Your task to perform on an android device: turn on javascript in the chrome app Image 0: 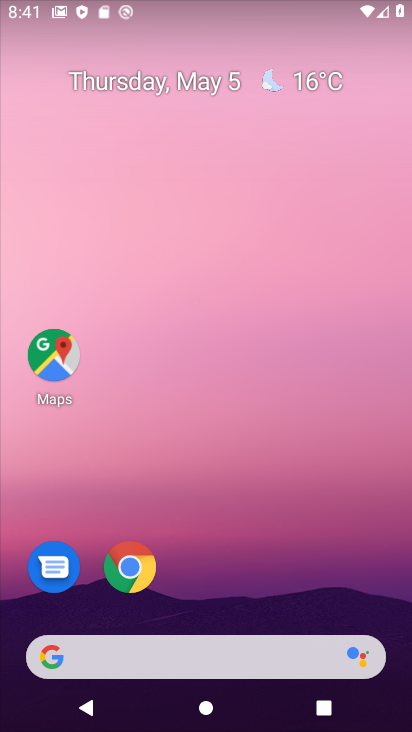
Step 0: click (129, 572)
Your task to perform on an android device: turn on javascript in the chrome app Image 1: 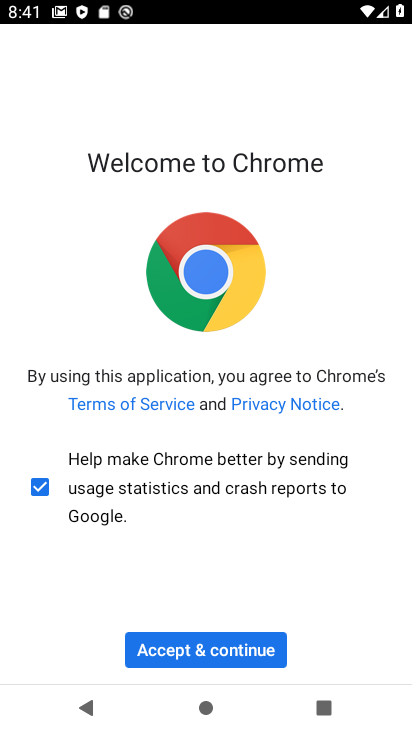
Step 1: click (217, 650)
Your task to perform on an android device: turn on javascript in the chrome app Image 2: 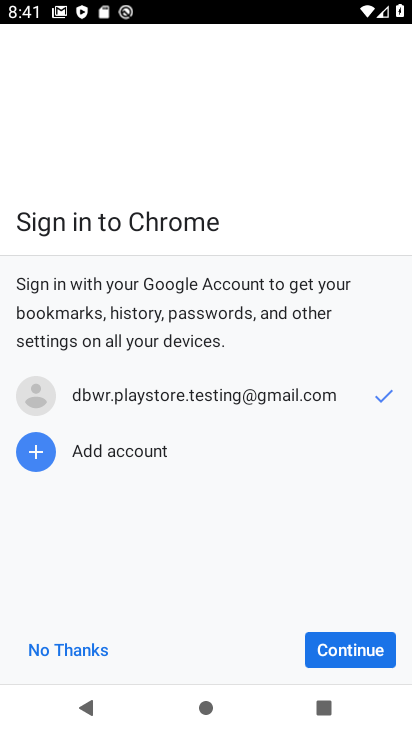
Step 2: click (355, 648)
Your task to perform on an android device: turn on javascript in the chrome app Image 3: 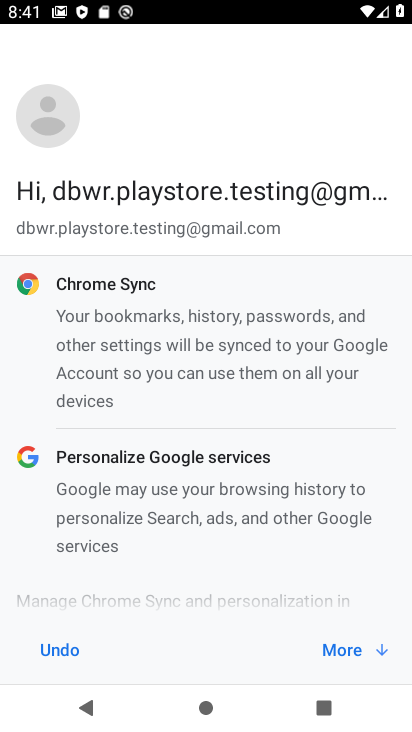
Step 3: click (355, 648)
Your task to perform on an android device: turn on javascript in the chrome app Image 4: 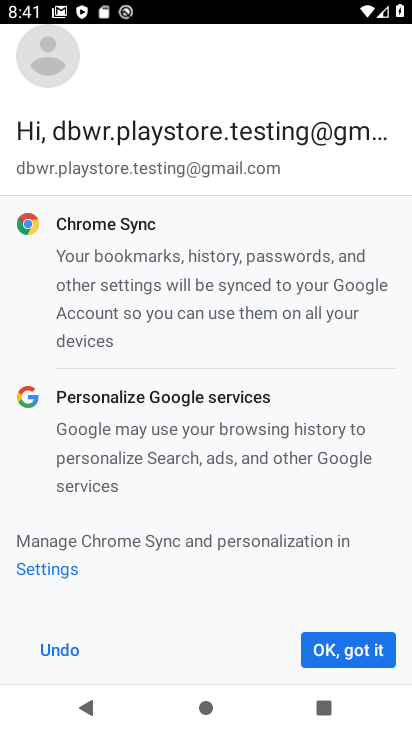
Step 4: click (355, 648)
Your task to perform on an android device: turn on javascript in the chrome app Image 5: 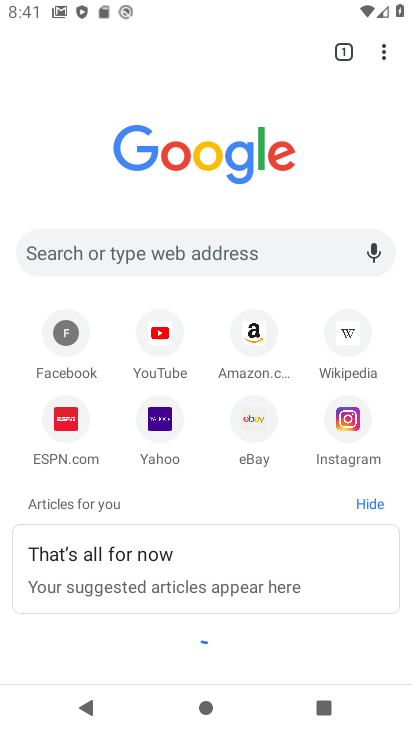
Step 5: click (387, 45)
Your task to perform on an android device: turn on javascript in the chrome app Image 6: 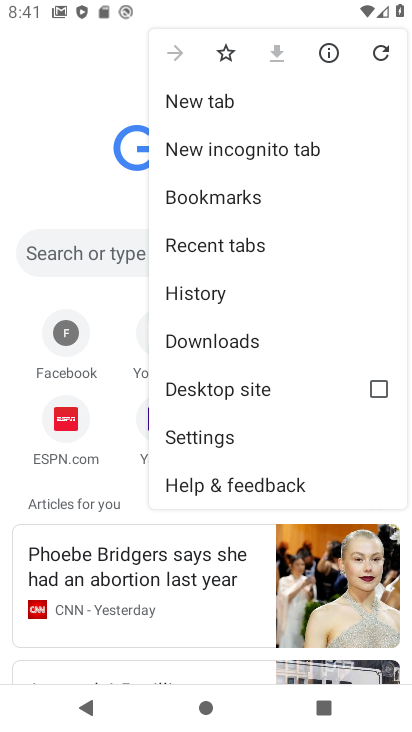
Step 6: click (212, 434)
Your task to perform on an android device: turn on javascript in the chrome app Image 7: 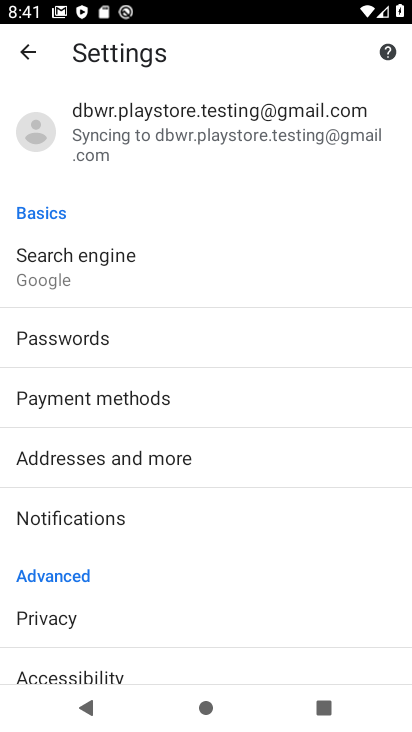
Step 7: drag from (140, 577) to (149, 264)
Your task to perform on an android device: turn on javascript in the chrome app Image 8: 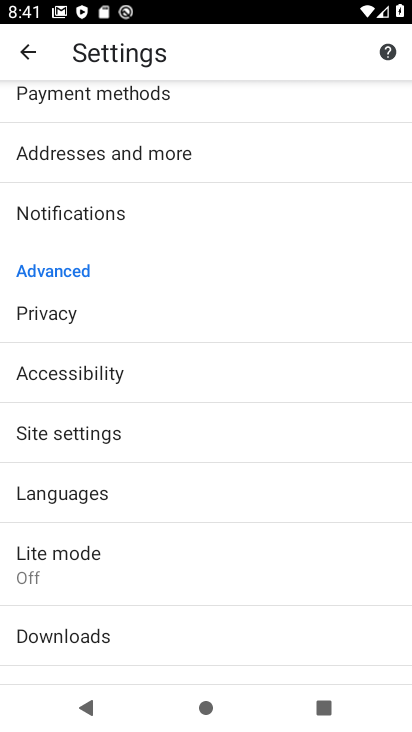
Step 8: click (105, 434)
Your task to perform on an android device: turn on javascript in the chrome app Image 9: 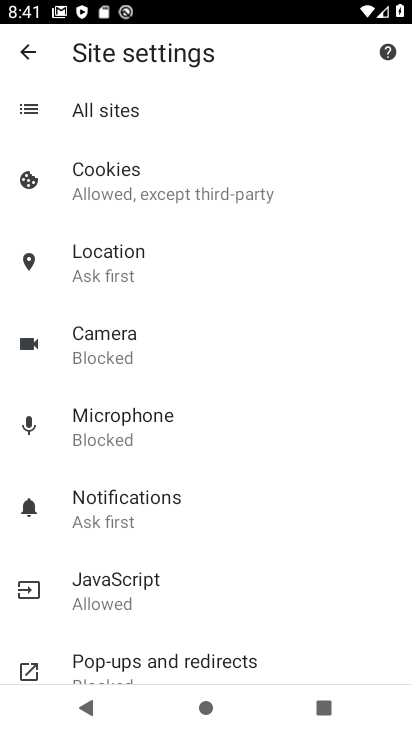
Step 9: click (108, 578)
Your task to perform on an android device: turn on javascript in the chrome app Image 10: 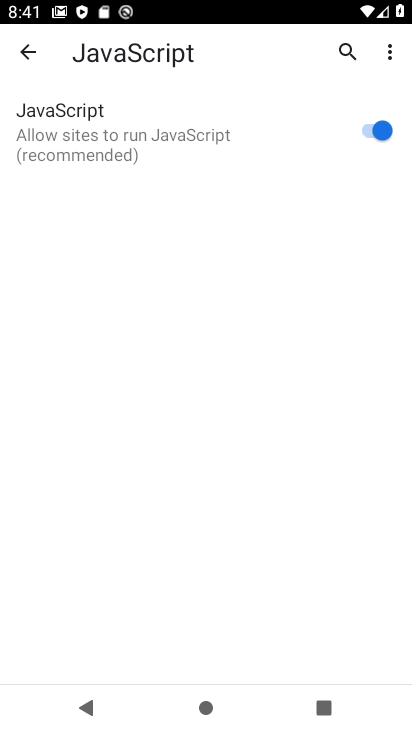
Step 10: task complete